Your task to perform on an android device: turn off notifications settings in the gmail app Image 0: 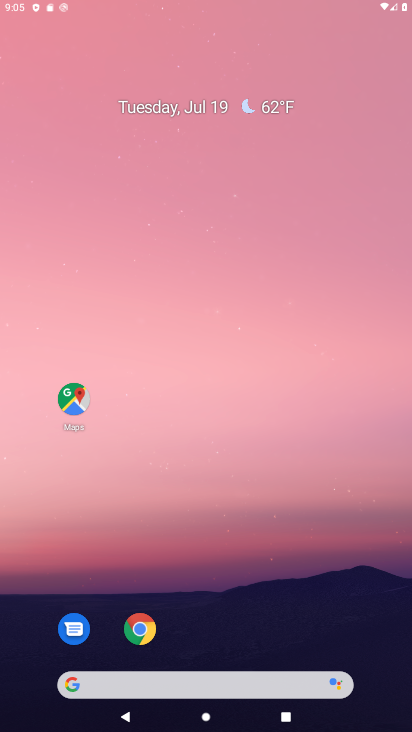
Step 0: press home button
Your task to perform on an android device: turn off notifications settings in the gmail app Image 1: 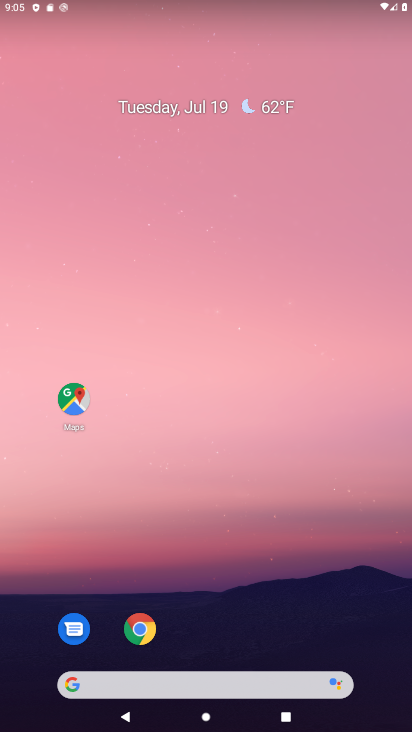
Step 1: drag from (221, 646) to (245, 1)
Your task to perform on an android device: turn off notifications settings in the gmail app Image 2: 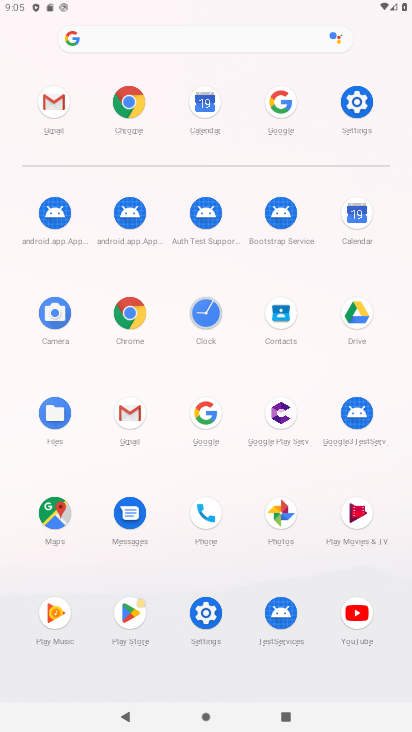
Step 2: click (126, 414)
Your task to perform on an android device: turn off notifications settings in the gmail app Image 3: 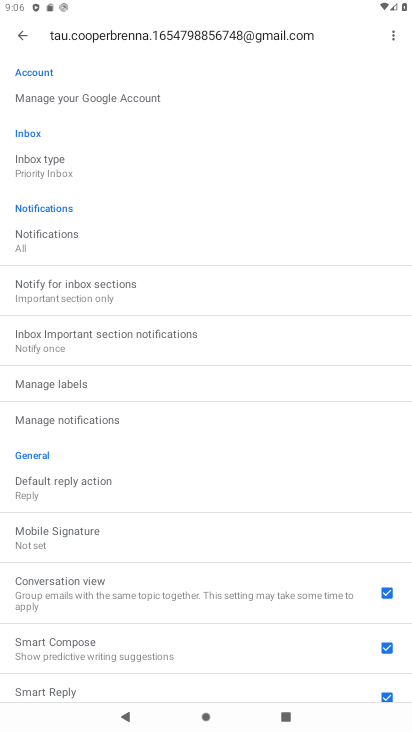
Step 3: click (24, 29)
Your task to perform on an android device: turn off notifications settings in the gmail app Image 4: 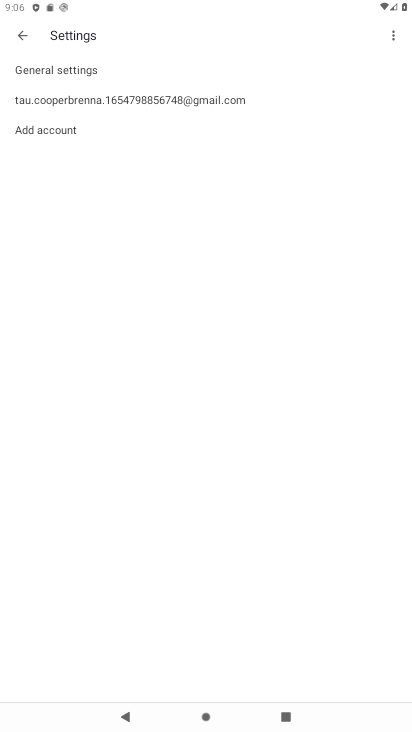
Step 4: click (100, 67)
Your task to perform on an android device: turn off notifications settings in the gmail app Image 5: 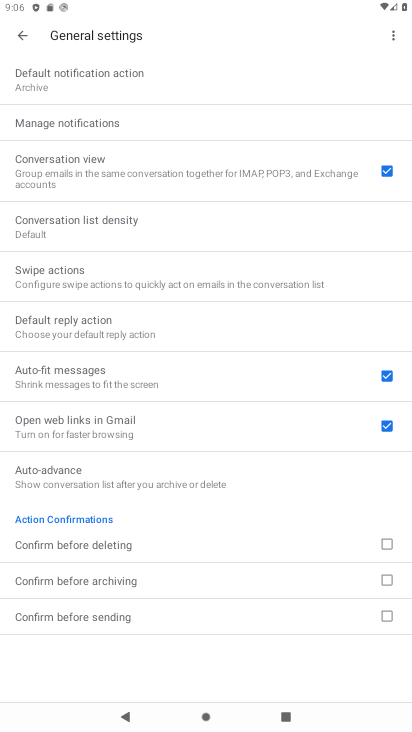
Step 5: click (95, 125)
Your task to perform on an android device: turn off notifications settings in the gmail app Image 6: 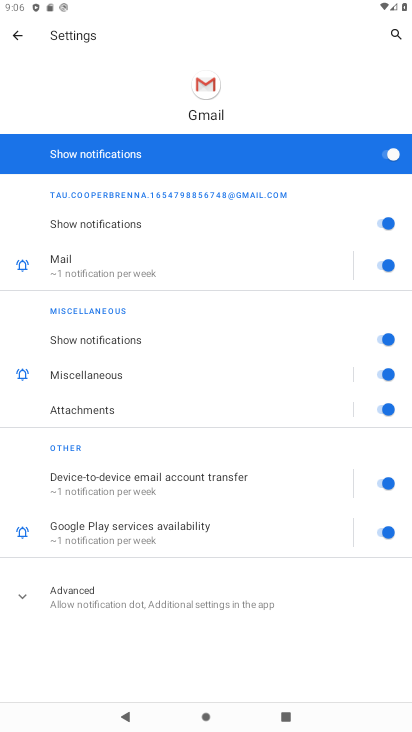
Step 6: click (385, 153)
Your task to perform on an android device: turn off notifications settings in the gmail app Image 7: 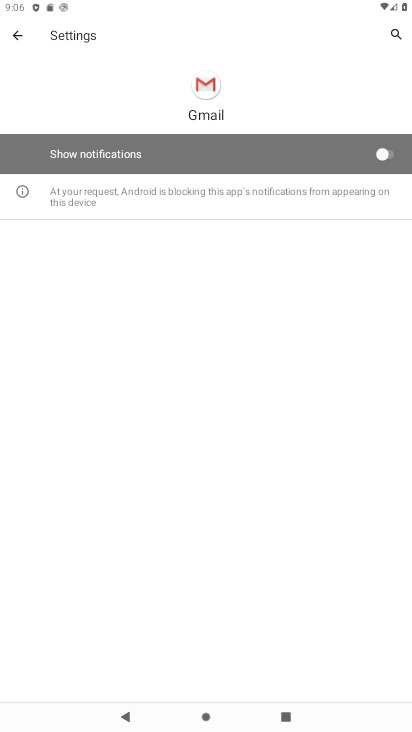
Step 7: task complete